Your task to perform on an android device: Open network settings Image 0: 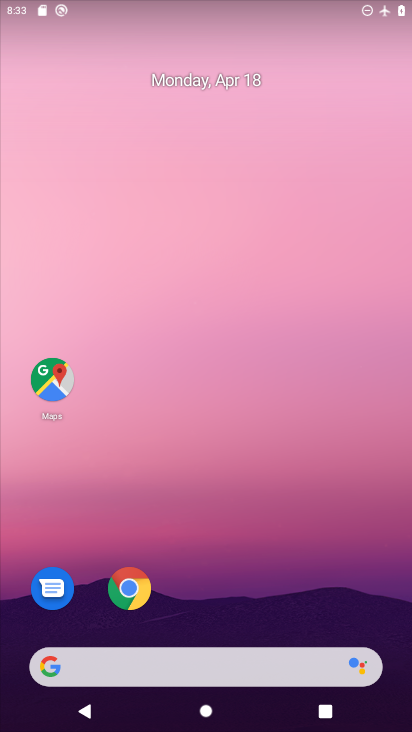
Step 0: drag from (236, 566) to (221, 22)
Your task to perform on an android device: Open network settings Image 1: 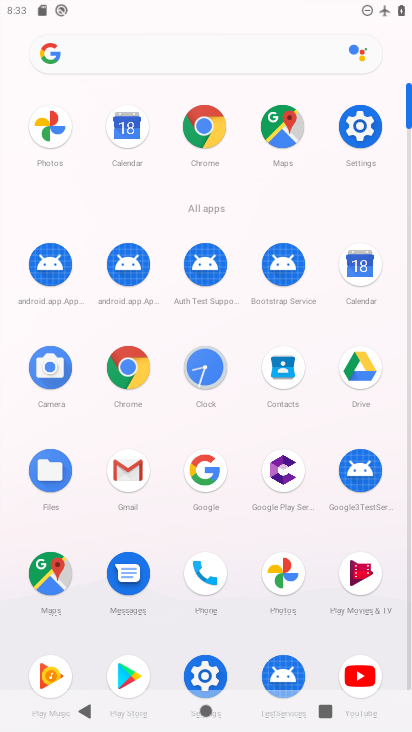
Step 1: click (363, 132)
Your task to perform on an android device: Open network settings Image 2: 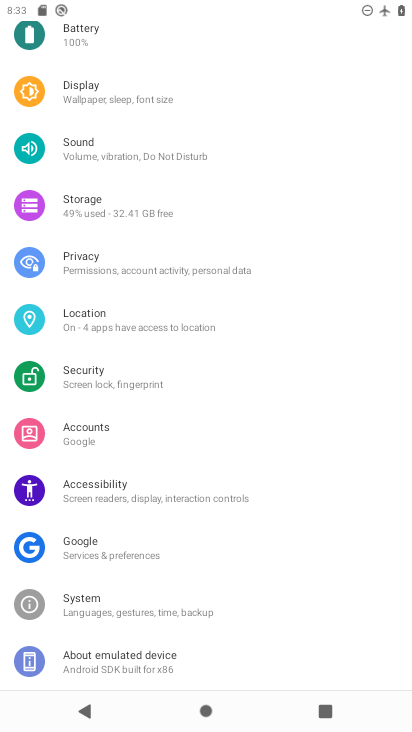
Step 2: drag from (168, 181) to (163, 488)
Your task to perform on an android device: Open network settings Image 3: 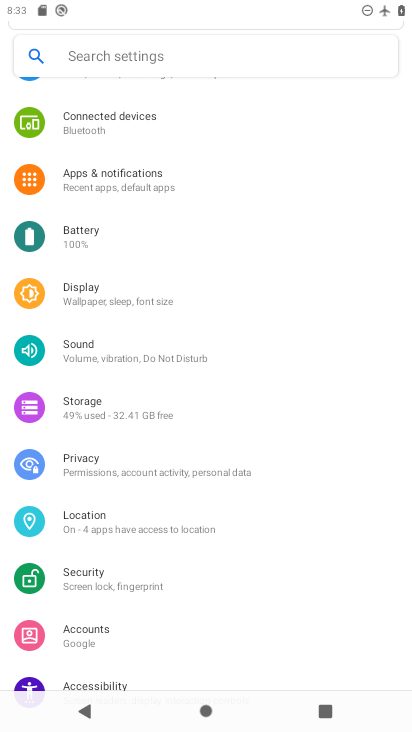
Step 3: drag from (157, 157) to (154, 463)
Your task to perform on an android device: Open network settings Image 4: 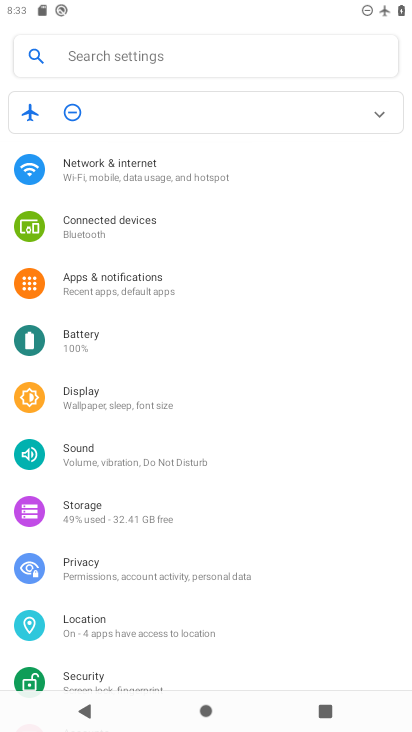
Step 4: click (139, 169)
Your task to perform on an android device: Open network settings Image 5: 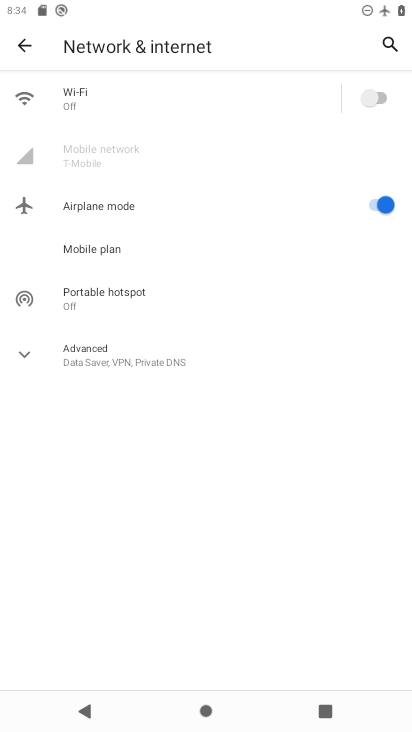
Step 5: task complete